Your task to perform on an android device: move a message to another label in the gmail app Image 0: 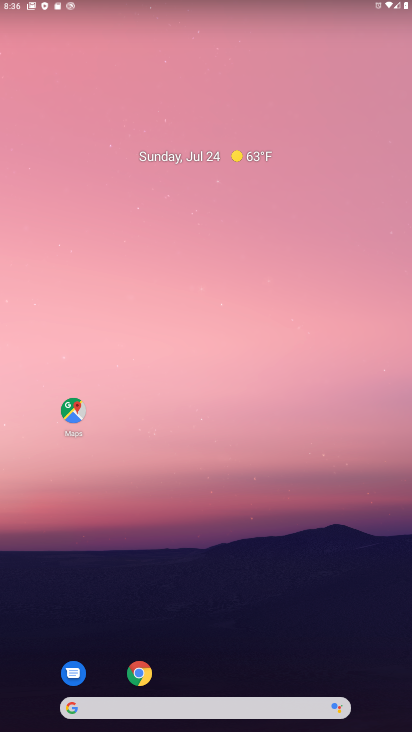
Step 0: drag from (263, 641) to (368, 30)
Your task to perform on an android device: move a message to another label in the gmail app Image 1: 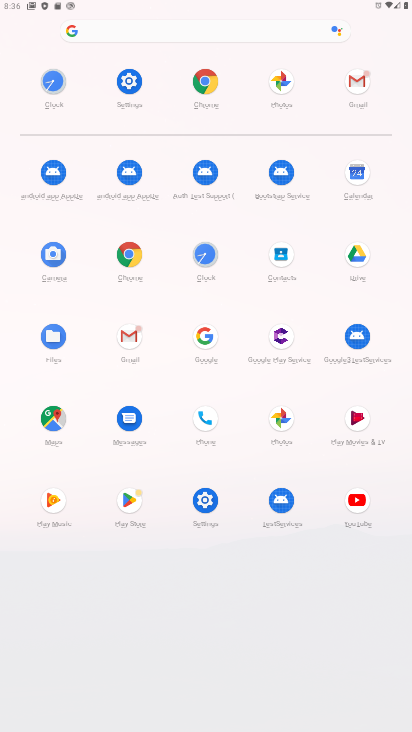
Step 1: task complete